Your task to perform on an android device: Go to notification settings Image 0: 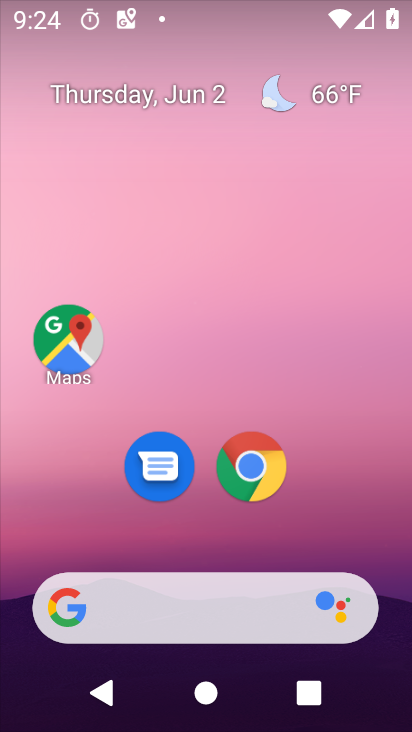
Step 0: drag from (29, 597) to (328, 124)
Your task to perform on an android device: Go to notification settings Image 1: 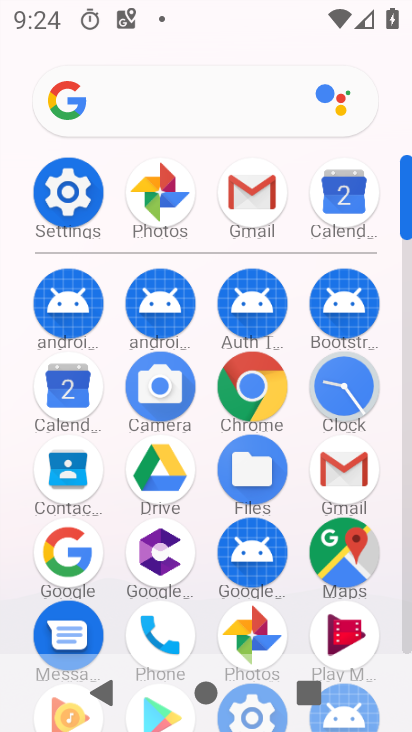
Step 1: click (51, 193)
Your task to perform on an android device: Go to notification settings Image 2: 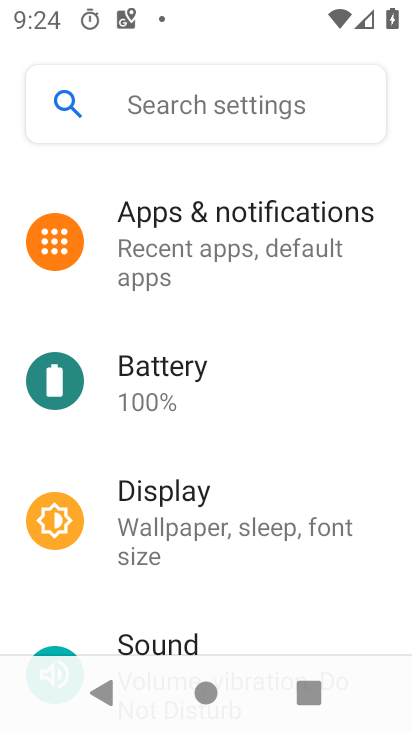
Step 2: click (111, 260)
Your task to perform on an android device: Go to notification settings Image 3: 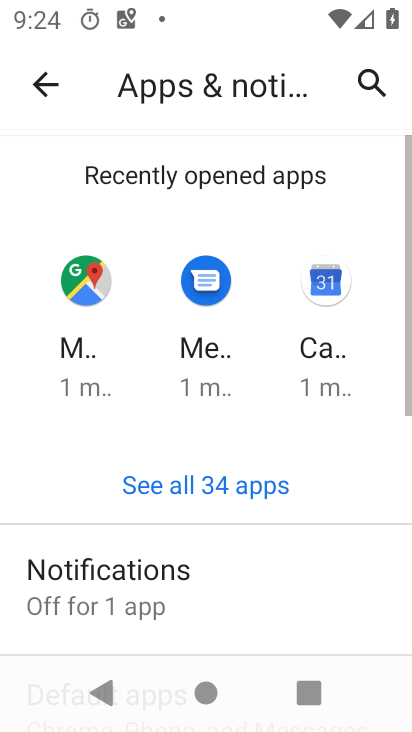
Step 3: click (59, 585)
Your task to perform on an android device: Go to notification settings Image 4: 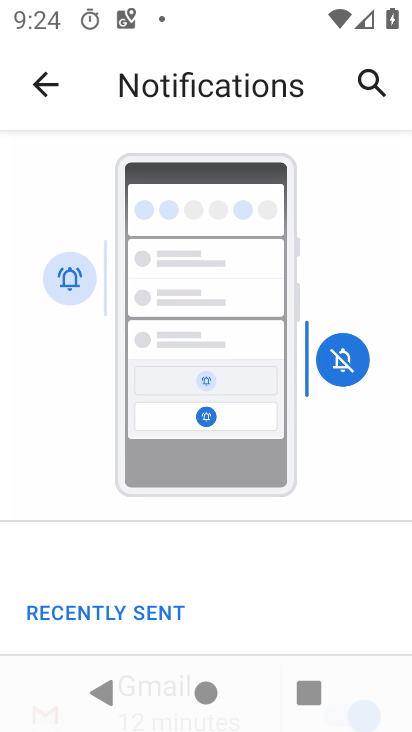
Step 4: task complete